Your task to perform on an android device: What's the weather today? Image 0: 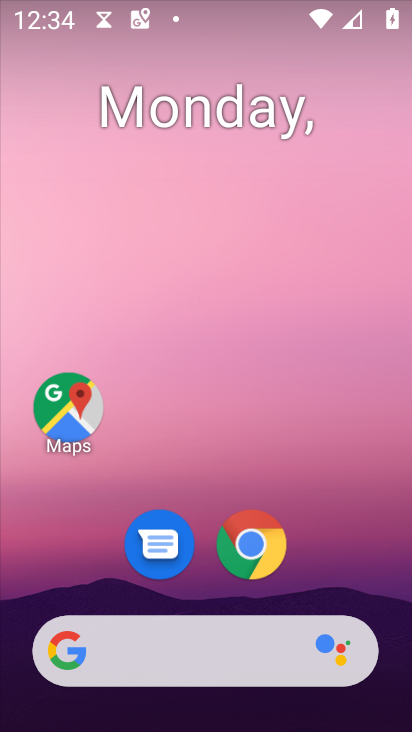
Step 0: click (271, 548)
Your task to perform on an android device: What's the weather today? Image 1: 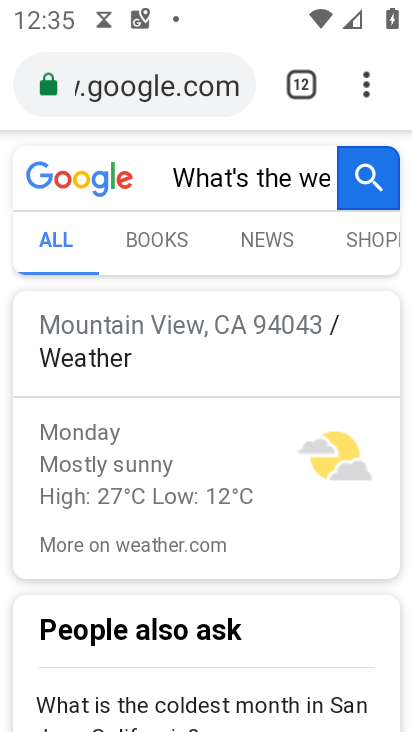
Step 1: task complete